Your task to perform on an android device: Open notification settings Image 0: 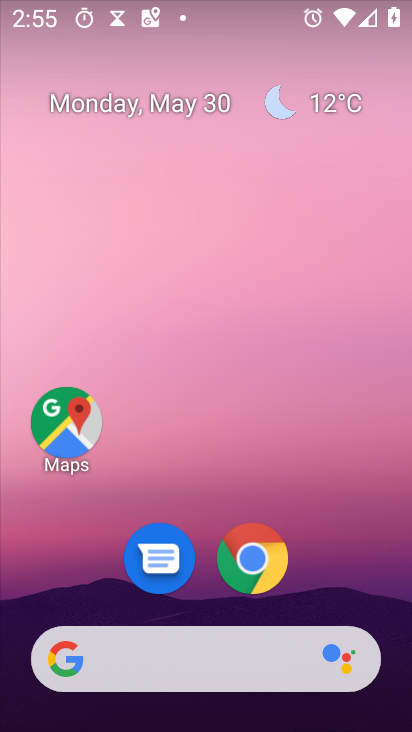
Step 0: drag from (216, 553) to (276, 131)
Your task to perform on an android device: Open notification settings Image 1: 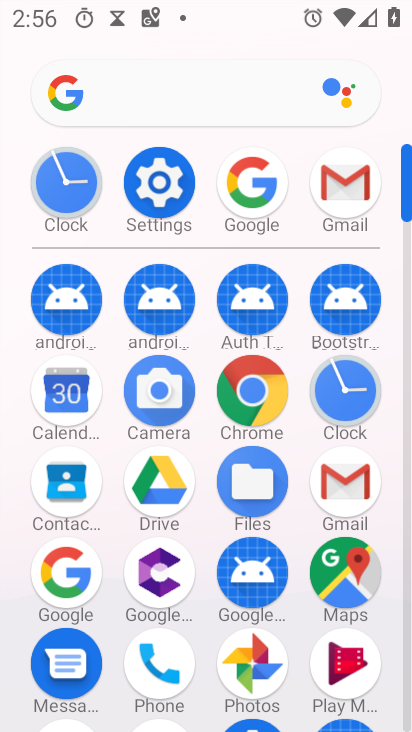
Step 1: click (156, 180)
Your task to perform on an android device: Open notification settings Image 2: 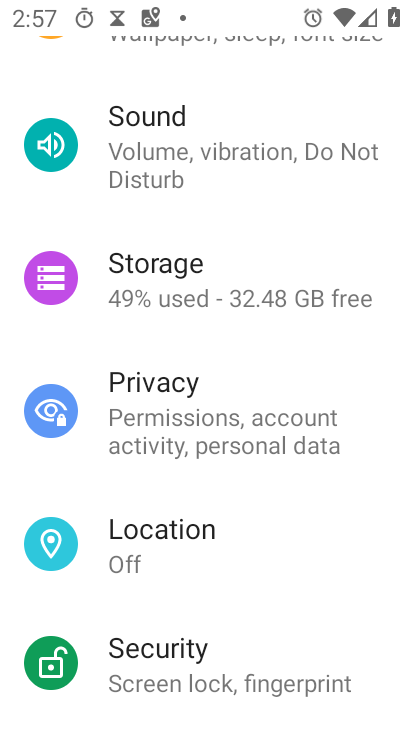
Step 2: drag from (271, 122) to (176, 719)
Your task to perform on an android device: Open notification settings Image 3: 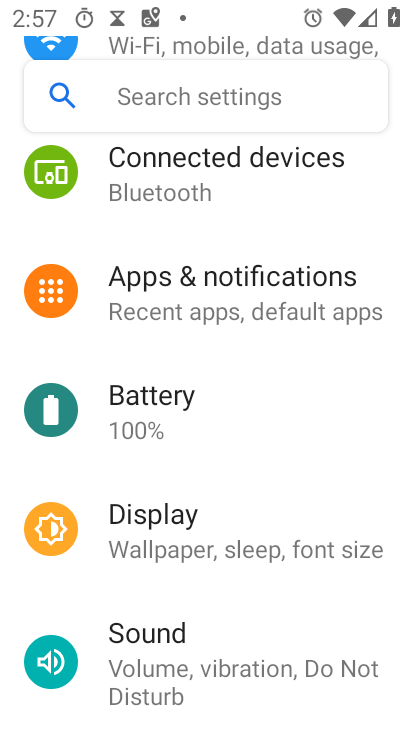
Step 3: drag from (281, 239) to (201, 728)
Your task to perform on an android device: Open notification settings Image 4: 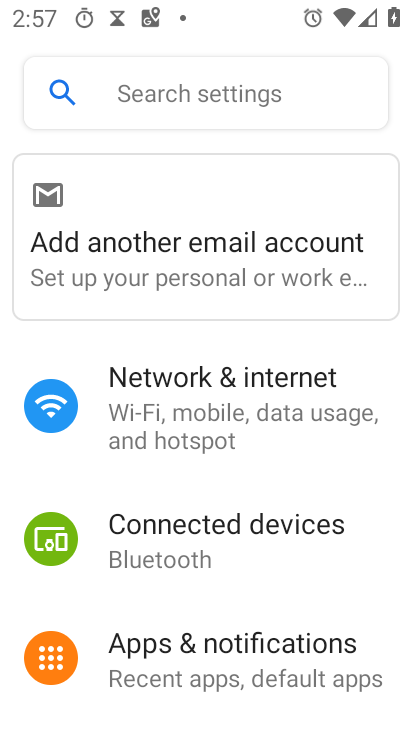
Step 4: click (186, 649)
Your task to perform on an android device: Open notification settings Image 5: 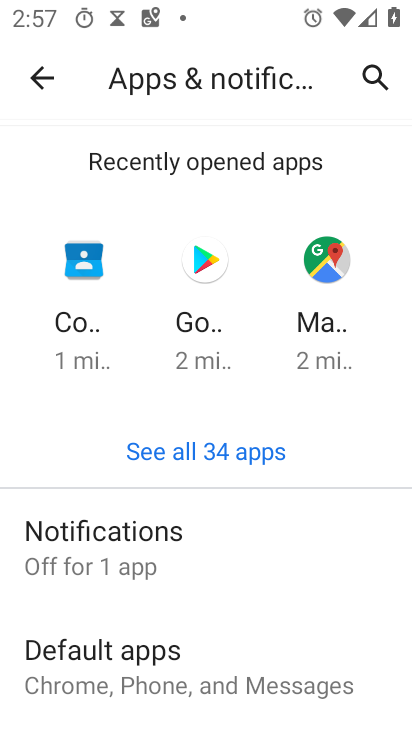
Step 5: click (112, 530)
Your task to perform on an android device: Open notification settings Image 6: 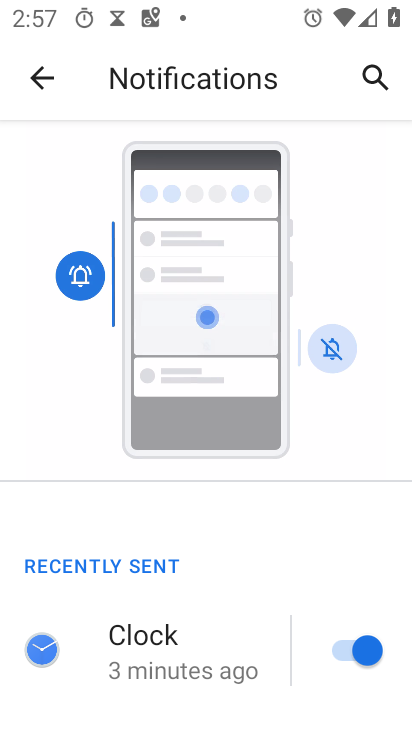
Step 6: task complete